Your task to perform on an android device: turn on wifi Image 0: 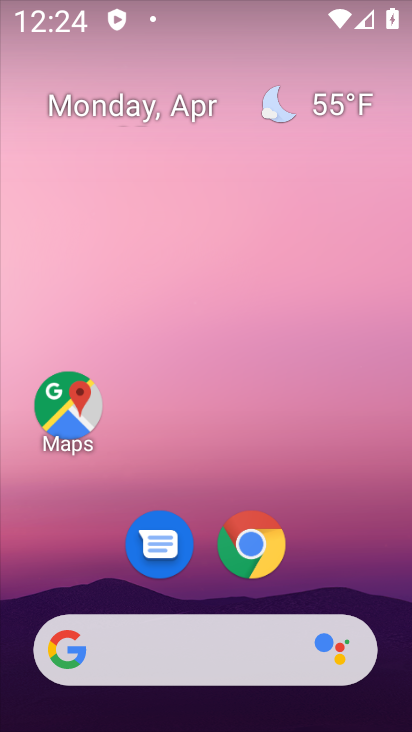
Step 0: drag from (310, 479) to (60, 88)
Your task to perform on an android device: turn on wifi Image 1: 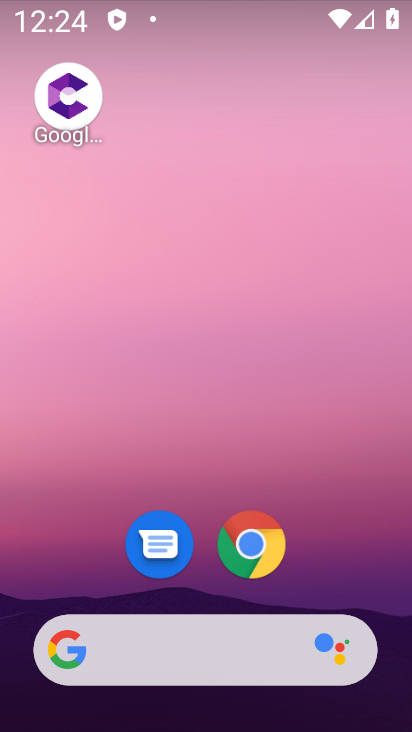
Step 1: drag from (344, 543) to (270, 41)
Your task to perform on an android device: turn on wifi Image 2: 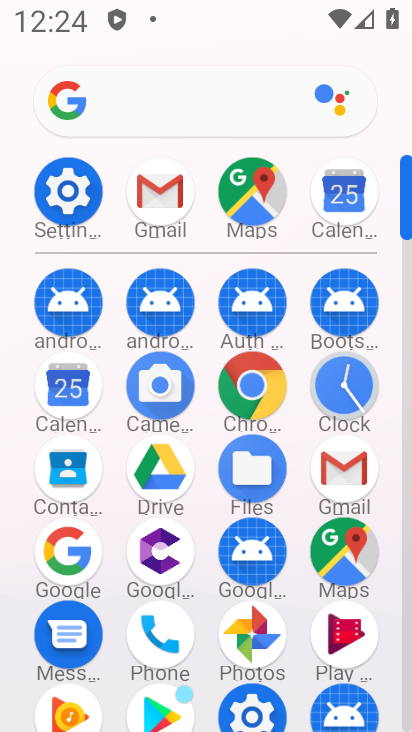
Step 2: click (80, 173)
Your task to perform on an android device: turn on wifi Image 3: 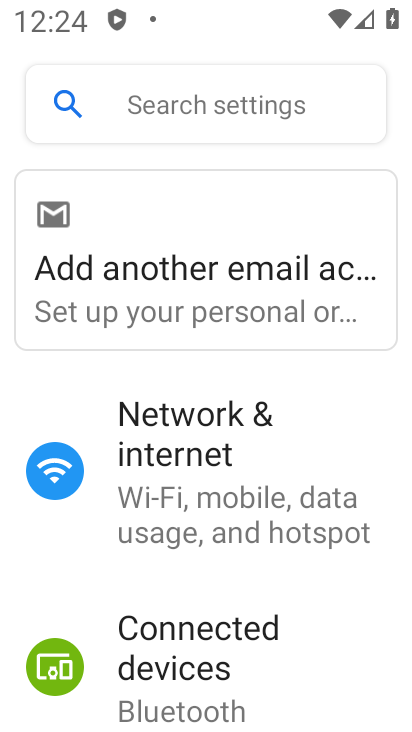
Step 3: click (246, 494)
Your task to perform on an android device: turn on wifi Image 4: 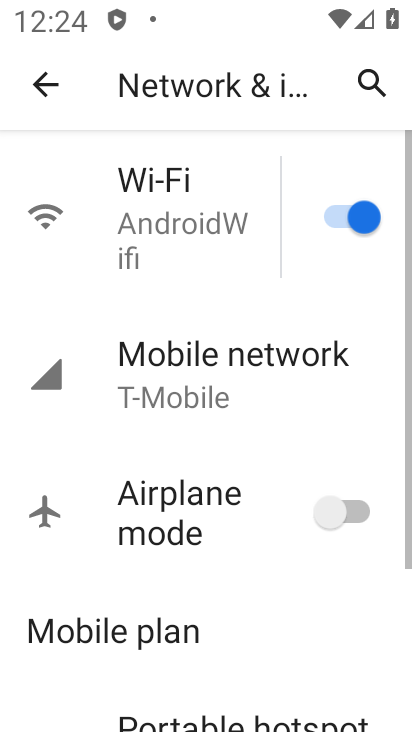
Step 4: click (117, 179)
Your task to perform on an android device: turn on wifi Image 5: 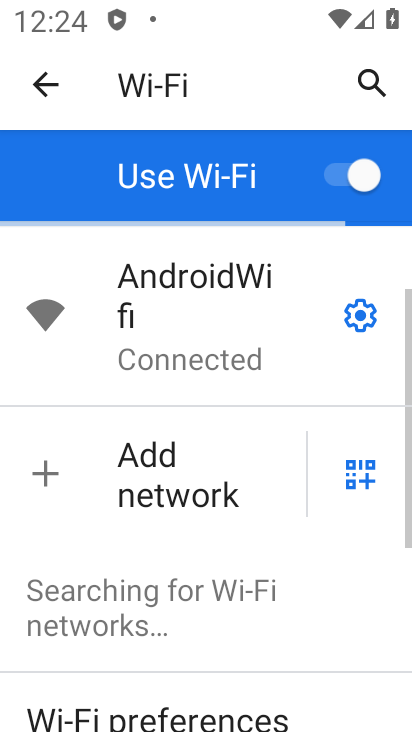
Step 5: task complete